Your task to perform on an android device: empty trash in the gmail app Image 0: 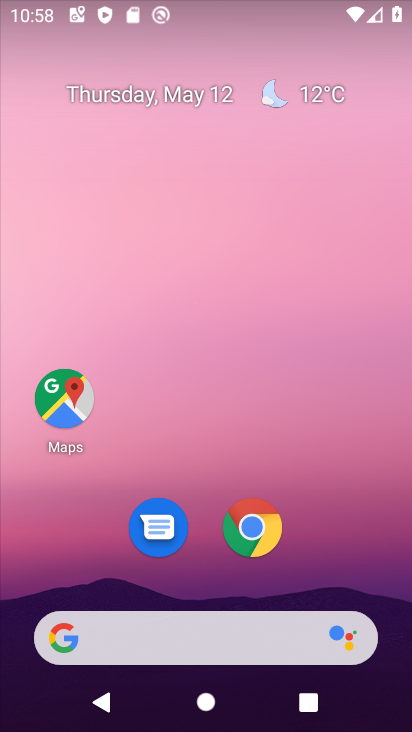
Step 0: drag from (299, 553) to (304, 262)
Your task to perform on an android device: empty trash in the gmail app Image 1: 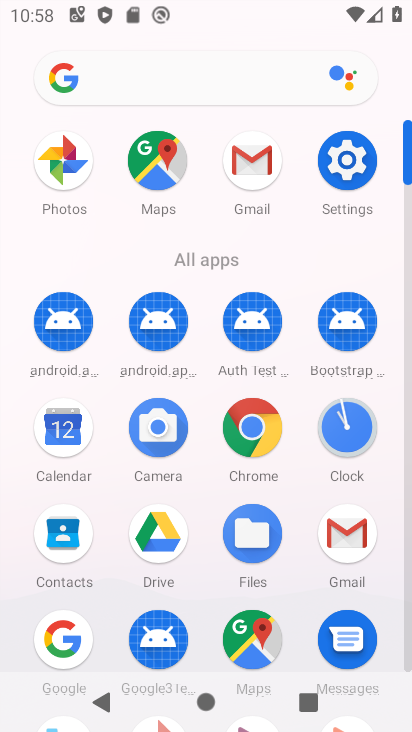
Step 1: click (256, 175)
Your task to perform on an android device: empty trash in the gmail app Image 2: 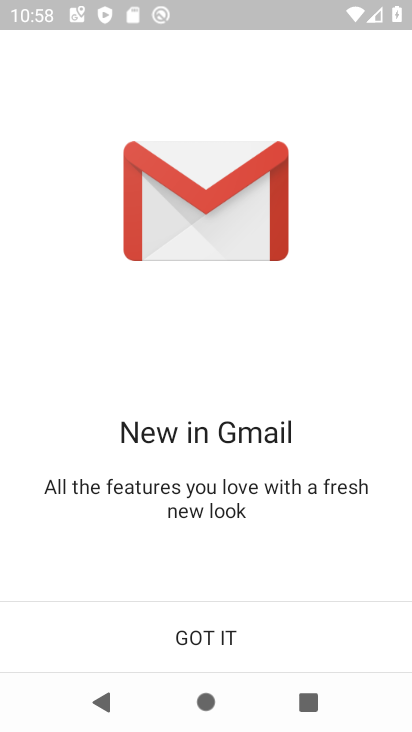
Step 2: click (223, 639)
Your task to perform on an android device: empty trash in the gmail app Image 3: 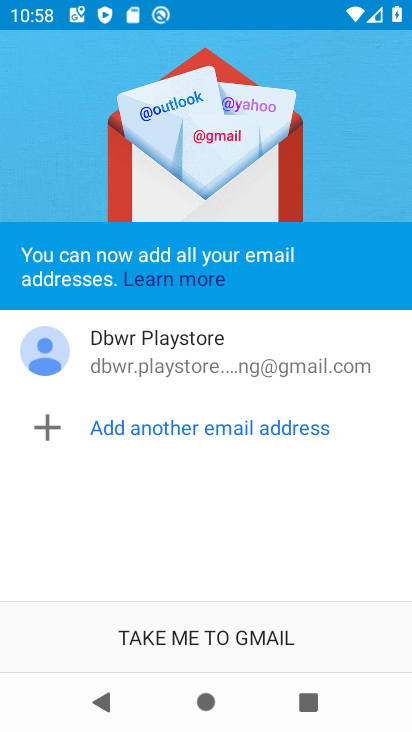
Step 3: click (223, 639)
Your task to perform on an android device: empty trash in the gmail app Image 4: 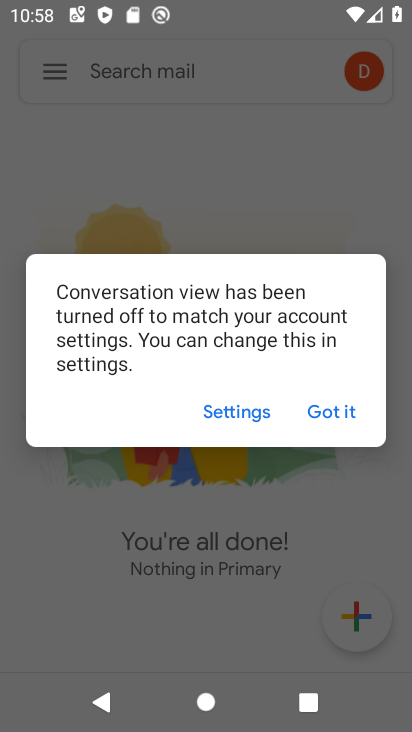
Step 4: click (322, 417)
Your task to perform on an android device: empty trash in the gmail app Image 5: 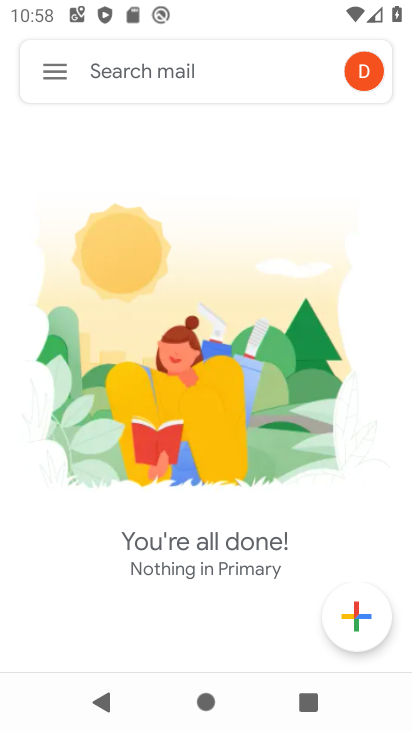
Step 5: click (59, 71)
Your task to perform on an android device: empty trash in the gmail app Image 6: 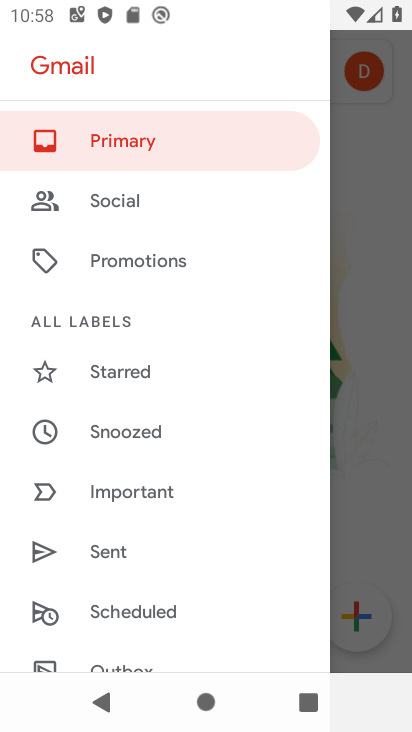
Step 6: drag from (149, 581) to (164, 233)
Your task to perform on an android device: empty trash in the gmail app Image 7: 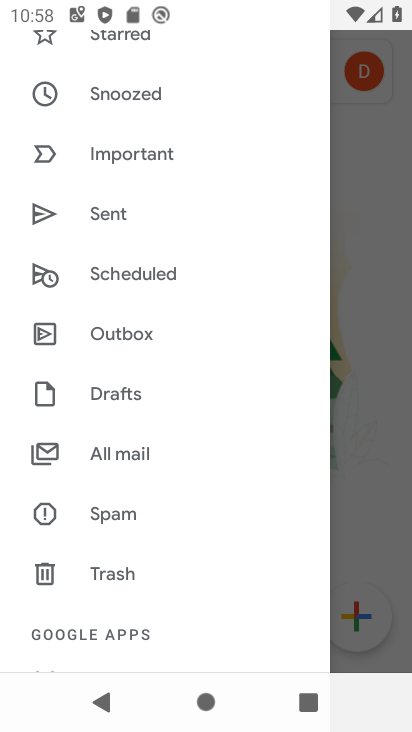
Step 7: click (125, 584)
Your task to perform on an android device: empty trash in the gmail app Image 8: 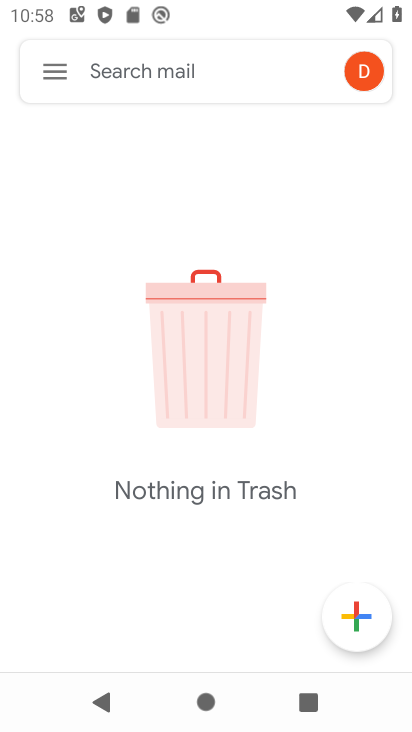
Step 8: task complete